Your task to perform on an android device: toggle data saver in the chrome app Image 0: 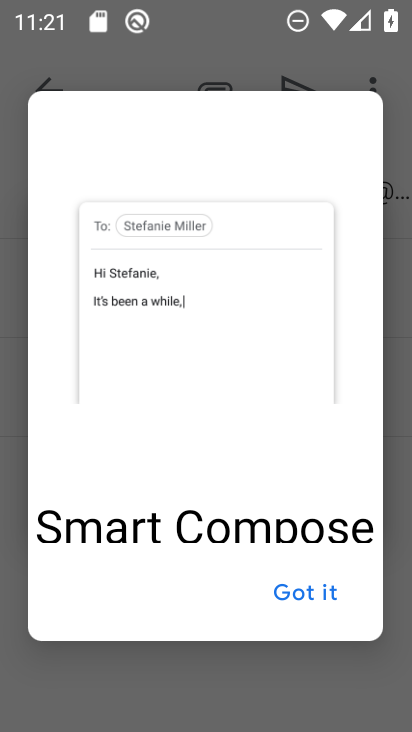
Step 0: press home button
Your task to perform on an android device: toggle data saver in the chrome app Image 1: 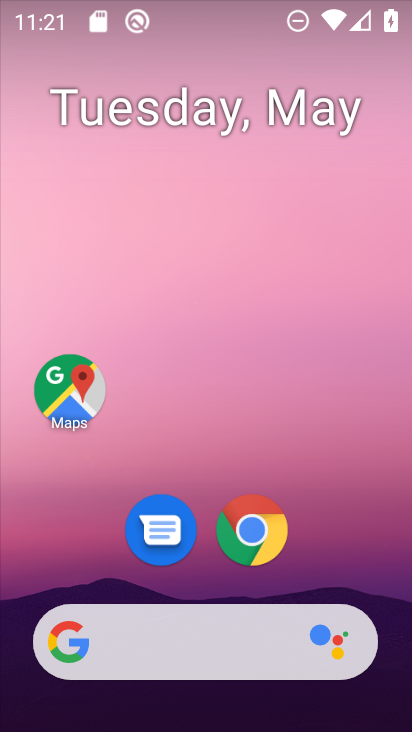
Step 1: click (249, 527)
Your task to perform on an android device: toggle data saver in the chrome app Image 2: 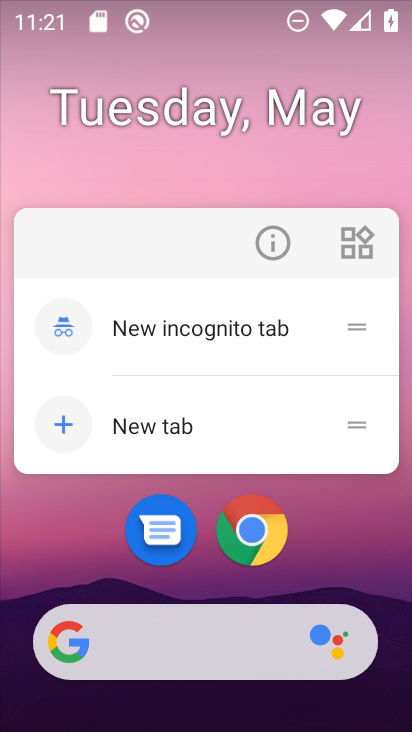
Step 2: click (250, 531)
Your task to perform on an android device: toggle data saver in the chrome app Image 3: 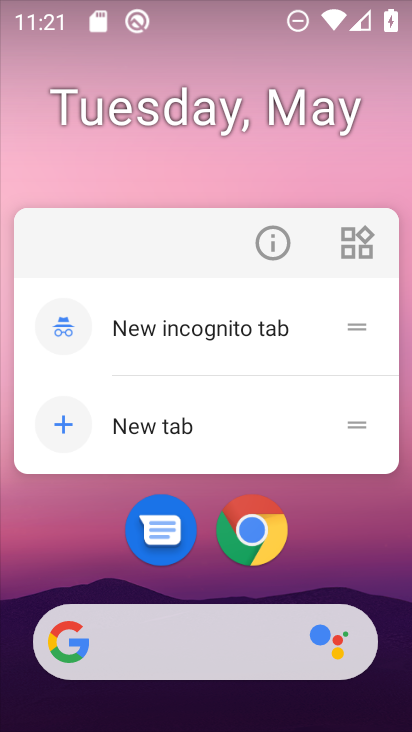
Step 3: click (325, 554)
Your task to perform on an android device: toggle data saver in the chrome app Image 4: 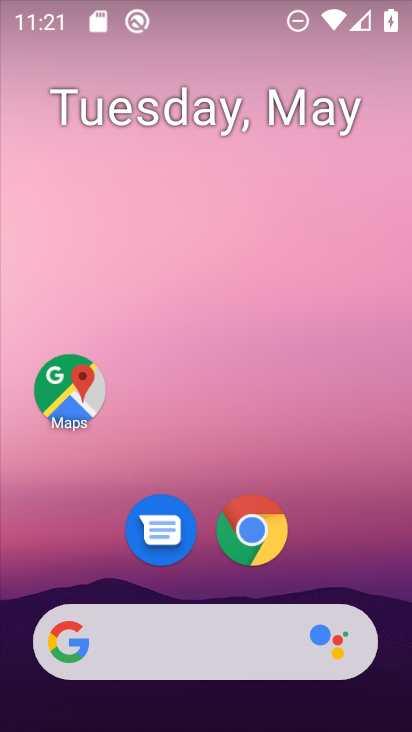
Step 4: drag from (334, 545) to (381, 104)
Your task to perform on an android device: toggle data saver in the chrome app Image 5: 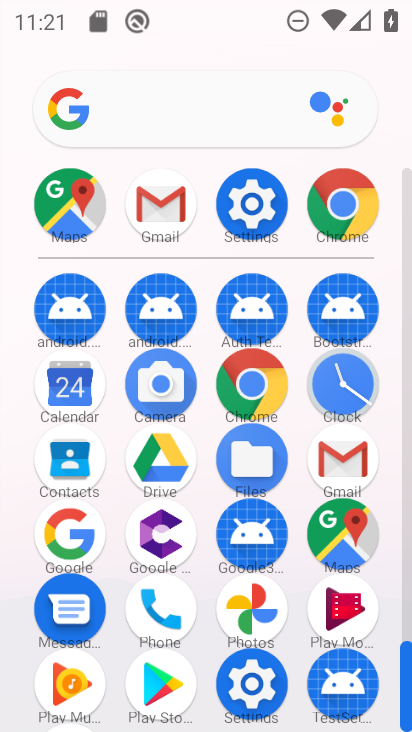
Step 5: click (246, 397)
Your task to perform on an android device: toggle data saver in the chrome app Image 6: 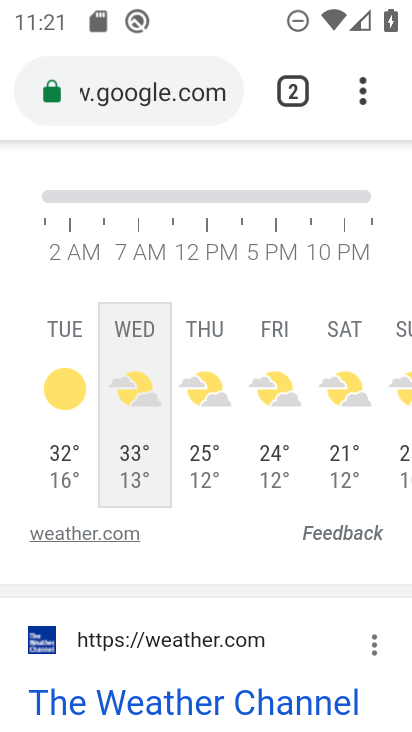
Step 6: drag from (368, 86) to (177, 592)
Your task to perform on an android device: toggle data saver in the chrome app Image 7: 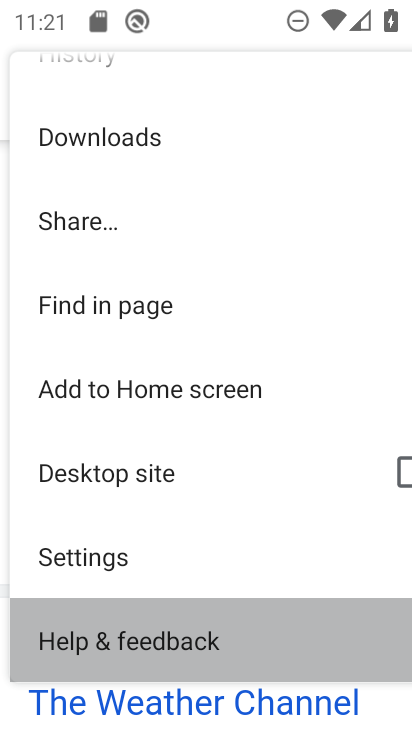
Step 7: drag from (179, 503) to (284, 270)
Your task to perform on an android device: toggle data saver in the chrome app Image 8: 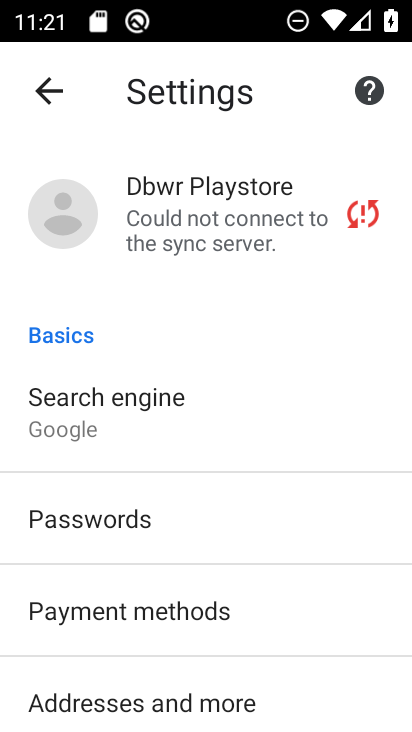
Step 8: drag from (266, 515) to (299, 218)
Your task to perform on an android device: toggle data saver in the chrome app Image 9: 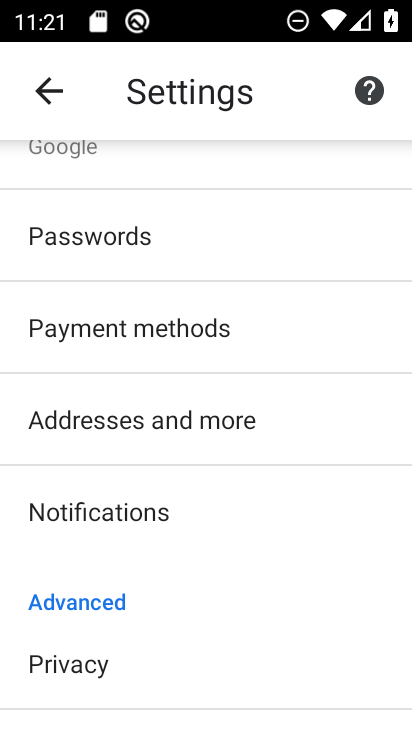
Step 9: drag from (204, 652) to (297, 216)
Your task to perform on an android device: toggle data saver in the chrome app Image 10: 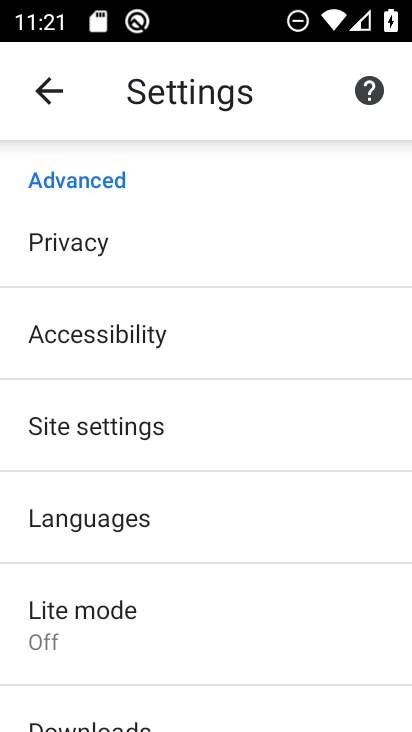
Step 10: click (109, 624)
Your task to perform on an android device: toggle data saver in the chrome app Image 11: 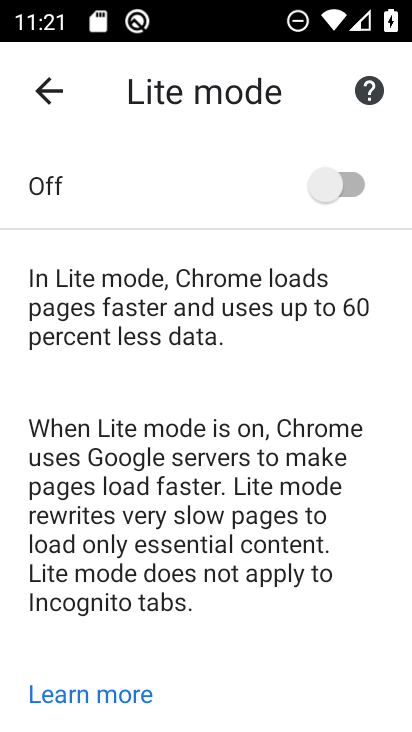
Step 11: click (351, 176)
Your task to perform on an android device: toggle data saver in the chrome app Image 12: 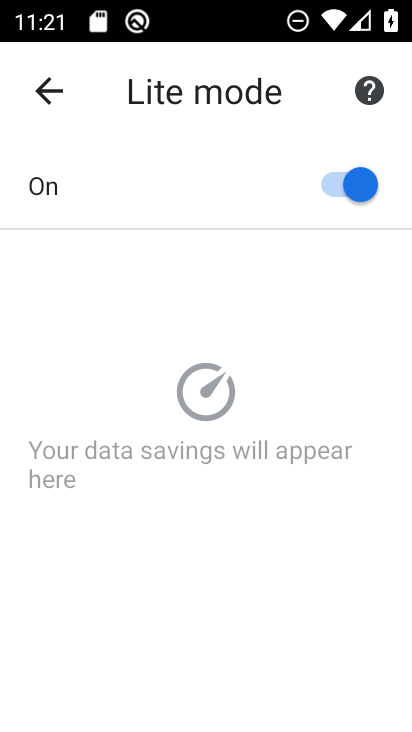
Step 12: task complete